Your task to perform on an android device: What is the news today? Image 0: 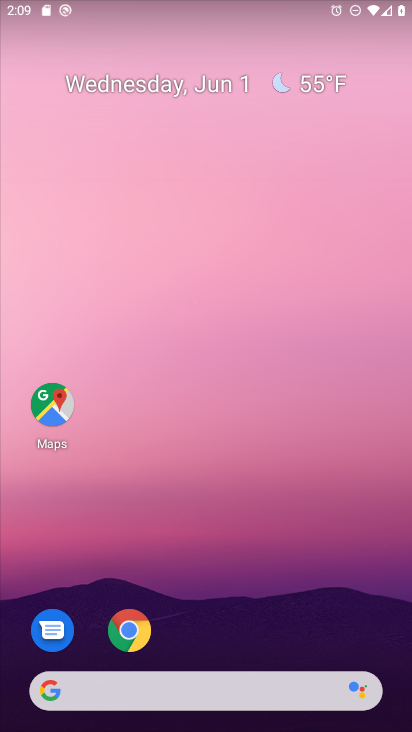
Step 0: drag from (230, 657) to (254, 2)
Your task to perform on an android device: What is the news today? Image 1: 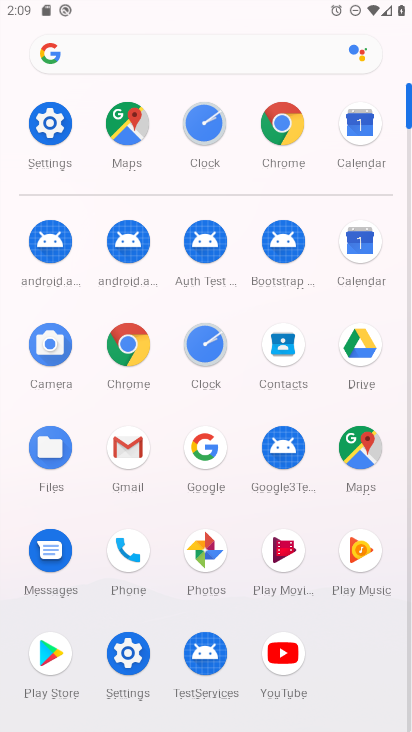
Step 1: click (118, 347)
Your task to perform on an android device: What is the news today? Image 2: 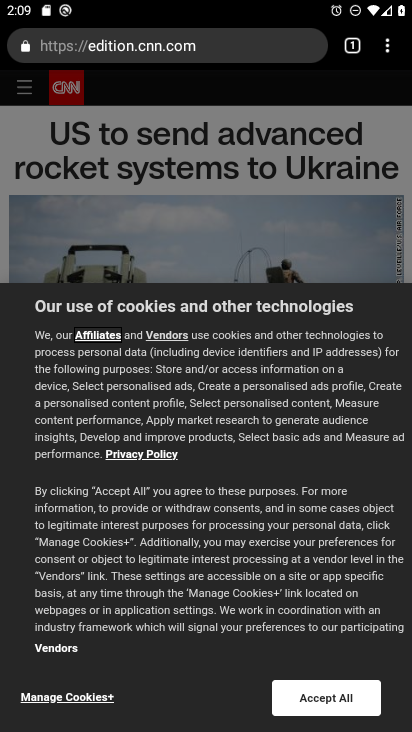
Step 2: click (232, 37)
Your task to perform on an android device: What is the news today? Image 3: 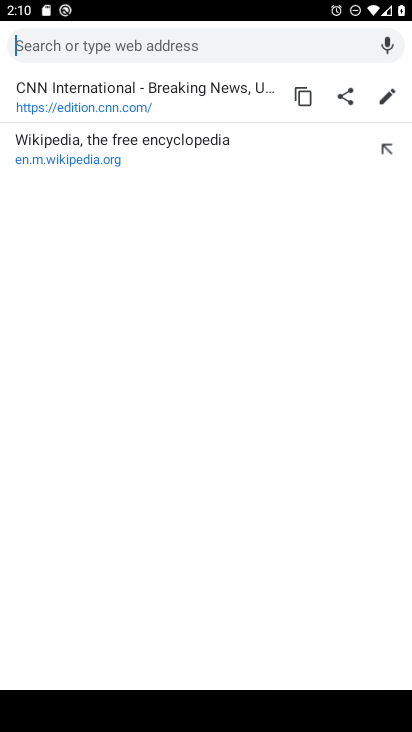
Step 3: type "news today"
Your task to perform on an android device: What is the news today? Image 4: 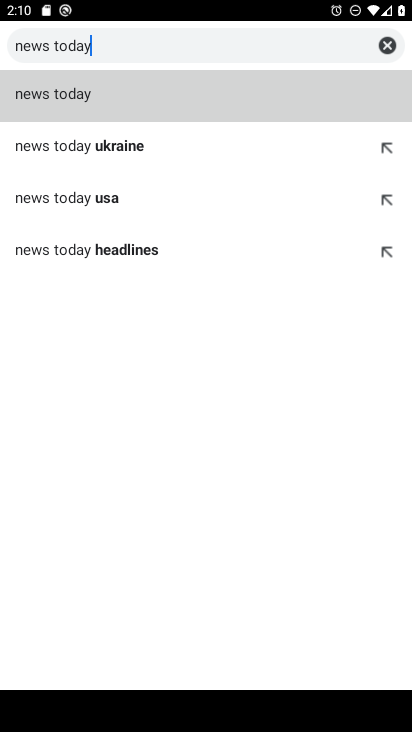
Step 4: click (67, 96)
Your task to perform on an android device: What is the news today? Image 5: 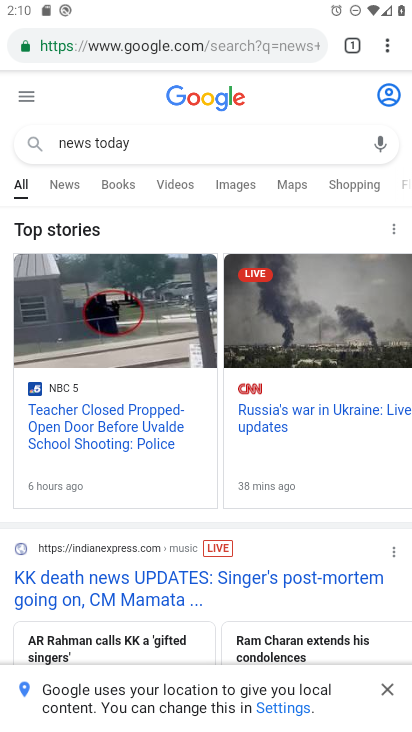
Step 5: task complete